Your task to perform on an android device: change notification settings in the gmail app Image 0: 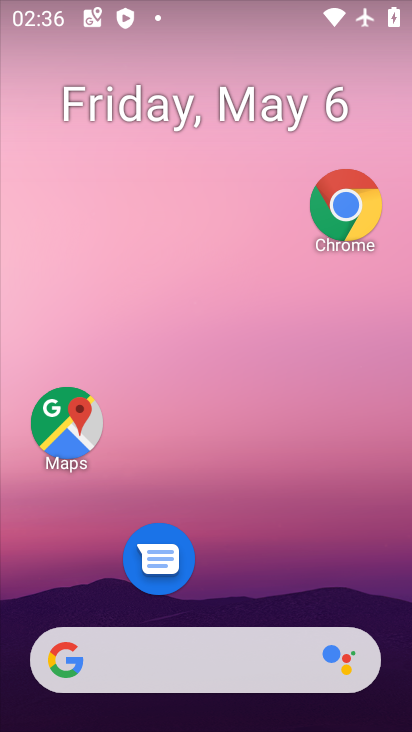
Step 0: drag from (151, 668) to (293, 76)
Your task to perform on an android device: change notification settings in the gmail app Image 1: 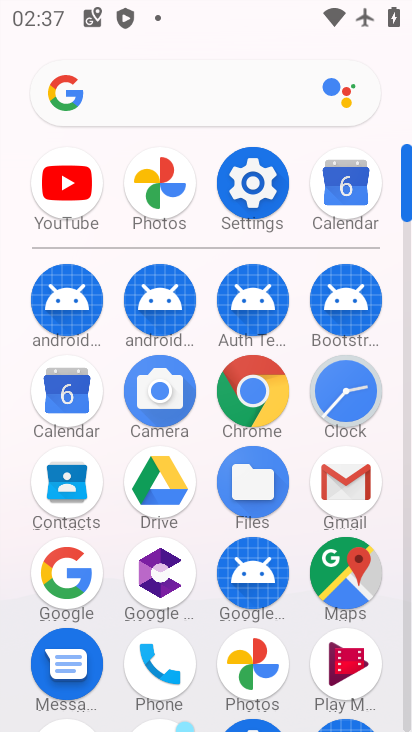
Step 1: click (356, 495)
Your task to perform on an android device: change notification settings in the gmail app Image 2: 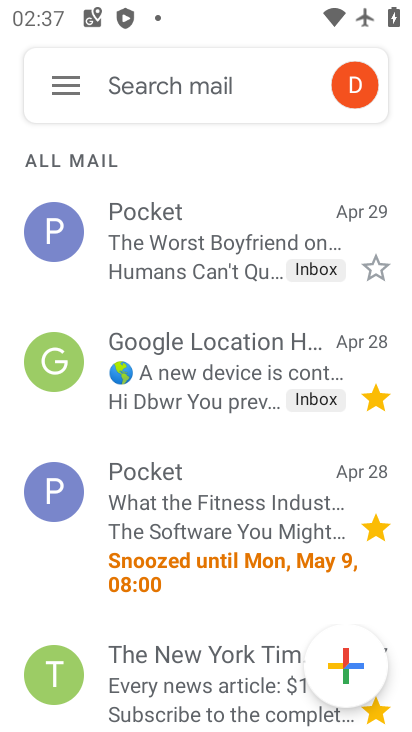
Step 2: click (74, 82)
Your task to perform on an android device: change notification settings in the gmail app Image 3: 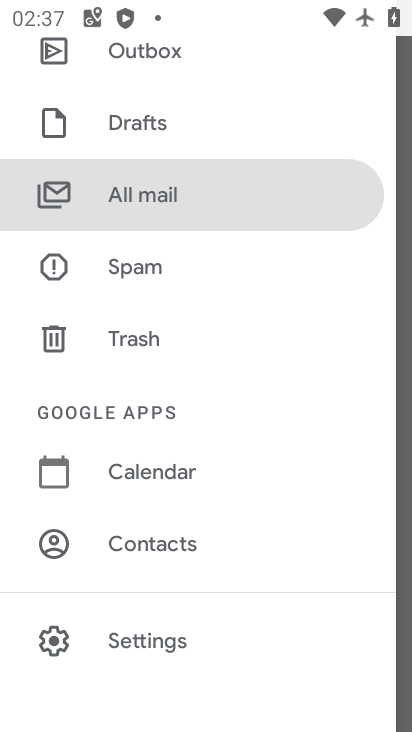
Step 3: click (139, 639)
Your task to perform on an android device: change notification settings in the gmail app Image 4: 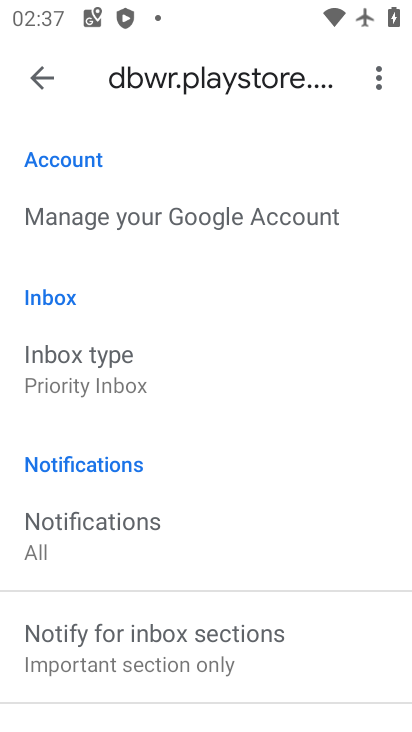
Step 4: click (85, 553)
Your task to perform on an android device: change notification settings in the gmail app Image 5: 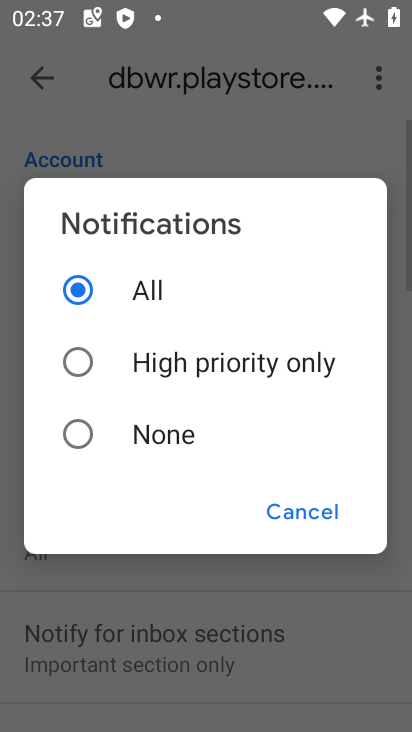
Step 5: click (73, 433)
Your task to perform on an android device: change notification settings in the gmail app Image 6: 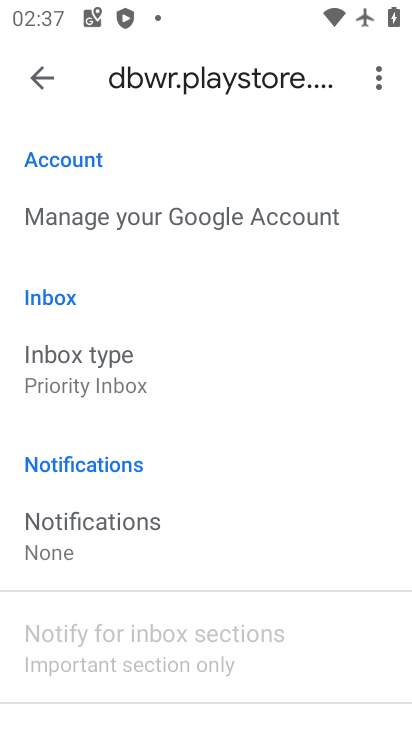
Step 6: task complete